Your task to perform on an android device: Open battery settings Image 0: 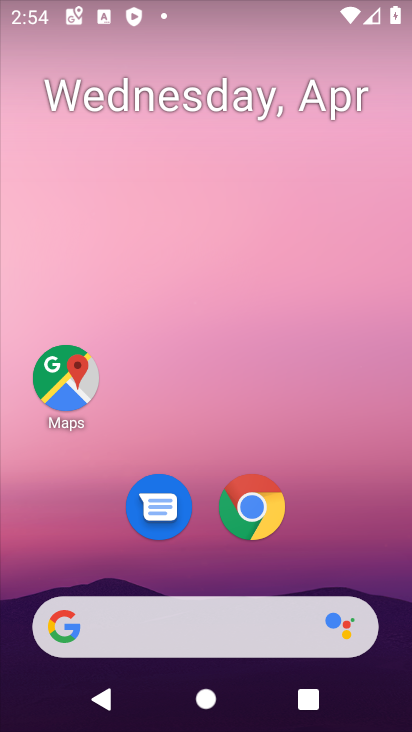
Step 0: click (330, 549)
Your task to perform on an android device: Open battery settings Image 1: 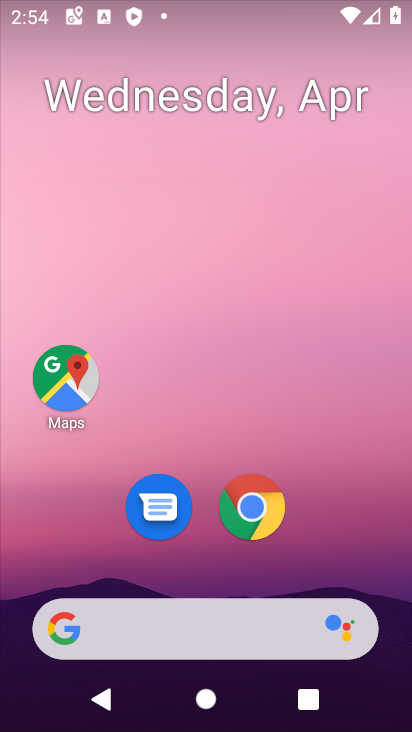
Step 1: drag from (326, 544) to (304, 116)
Your task to perform on an android device: Open battery settings Image 2: 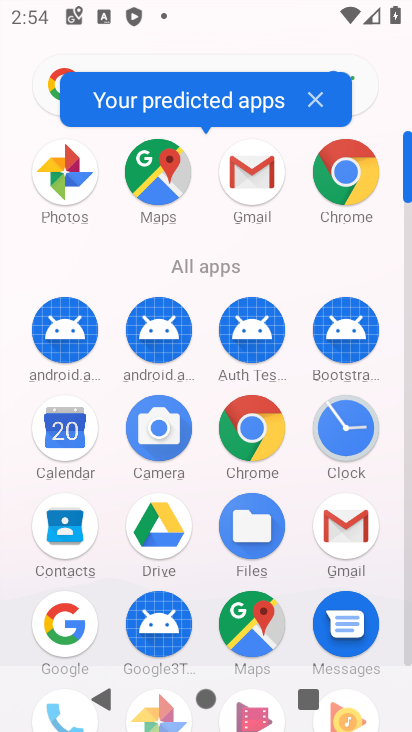
Step 2: drag from (284, 525) to (274, 237)
Your task to perform on an android device: Open battery settings Image 3: 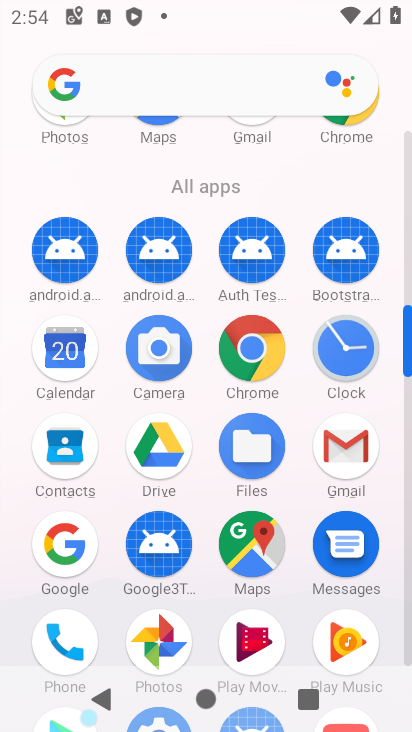
Step 3: drag from (197, 658) to (196, 379)
Your task to perform on an android device: Open battery settings Image 4: 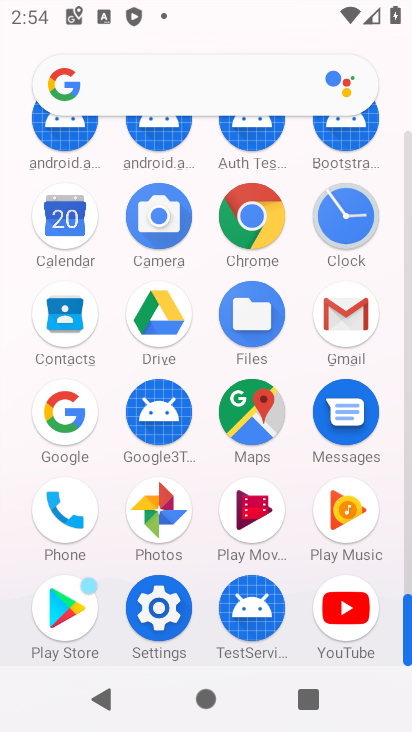
Step 4: click (166, 605)
Your task to perform on an android device: Open battery settings Image 5: 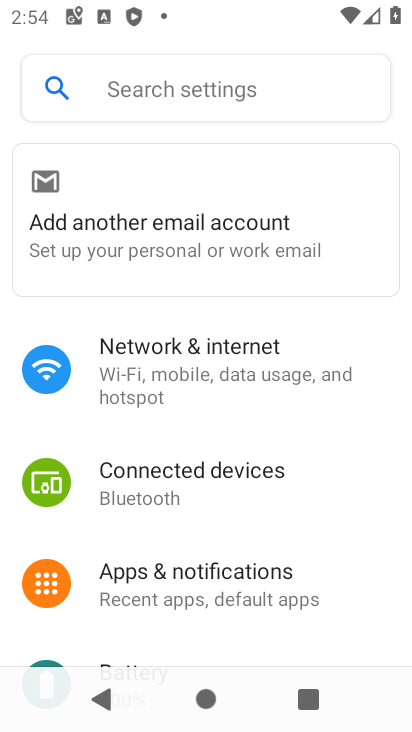
Step 5: drag from (345, 541) to (358, 104)
Your task to perform on an android device: Open battery settings Image 6: 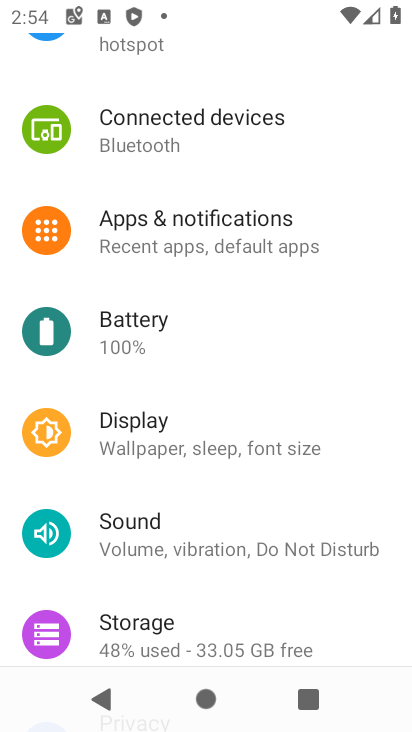
Step 6: click (157, 334)
Your task to perform on an android device: Open battery settings Image 7: 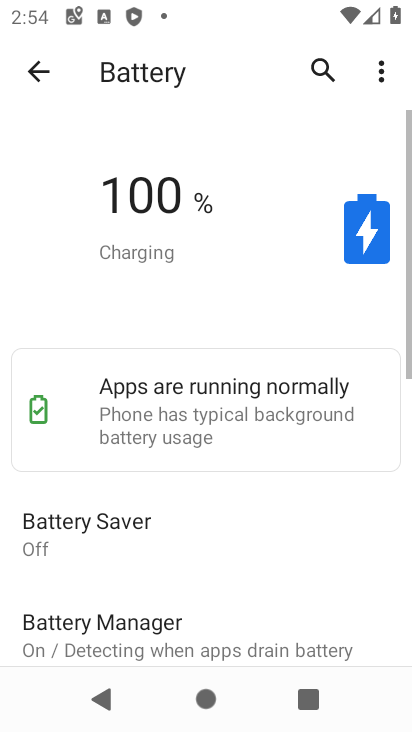
Step 7: task complete